Your task to perform on an android device: install app "Spotify" Image 0: 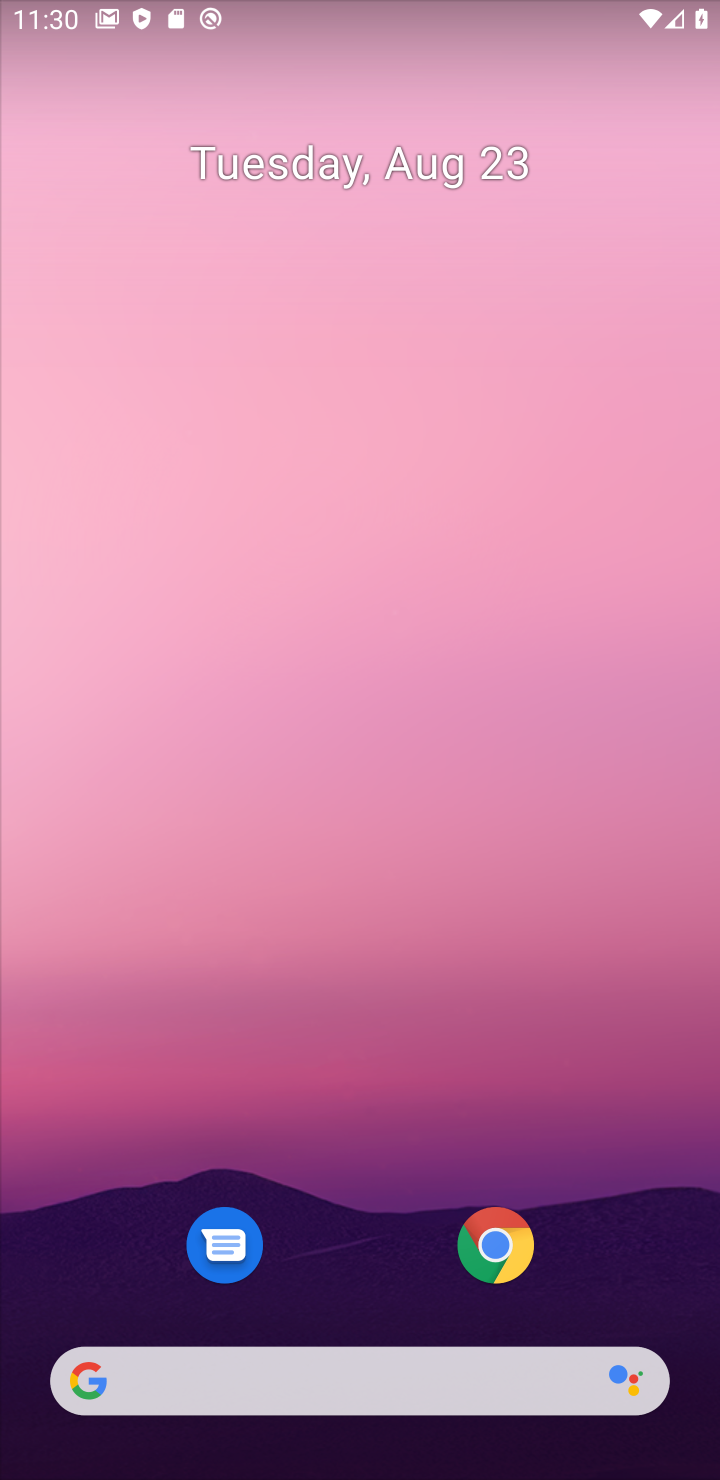
Step 0: drag from (382, 1312) to (465, 397)
Your task to perform on an android device: install app "Spotify" Image 1: 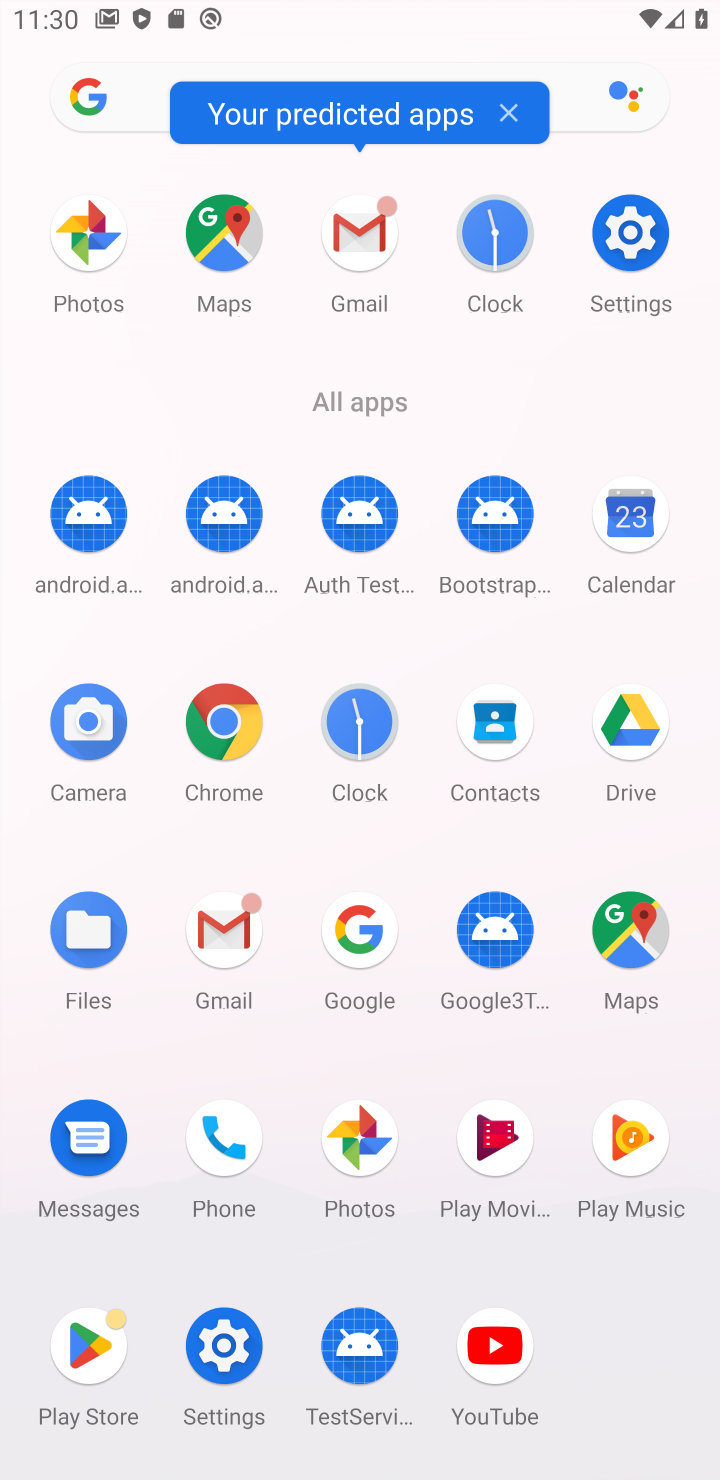
Step 1: click (85, 1350)
Your task to perform on an android device: install app "Spotify" Image 2: 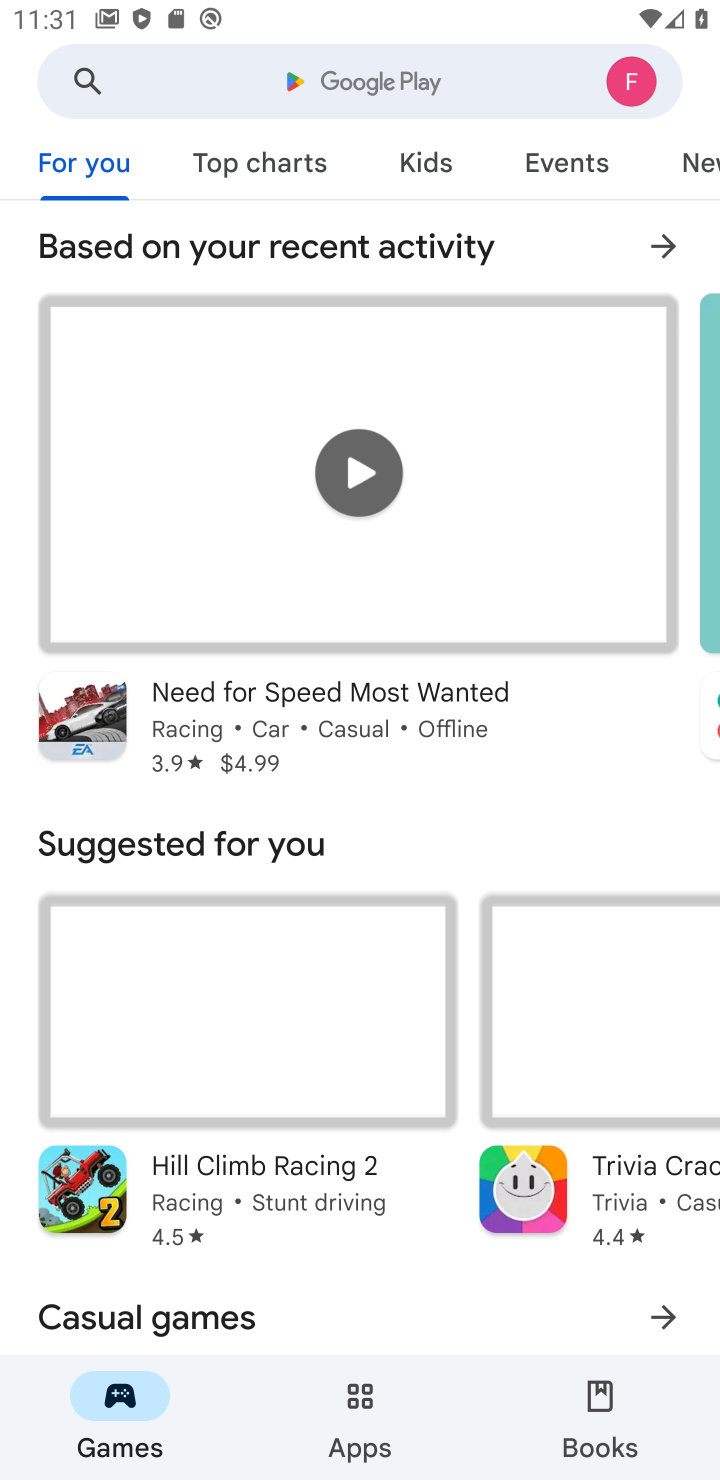
Step 2: click (382, 81)
Your task to perform on an android device: install app "Spotify" Image 3: 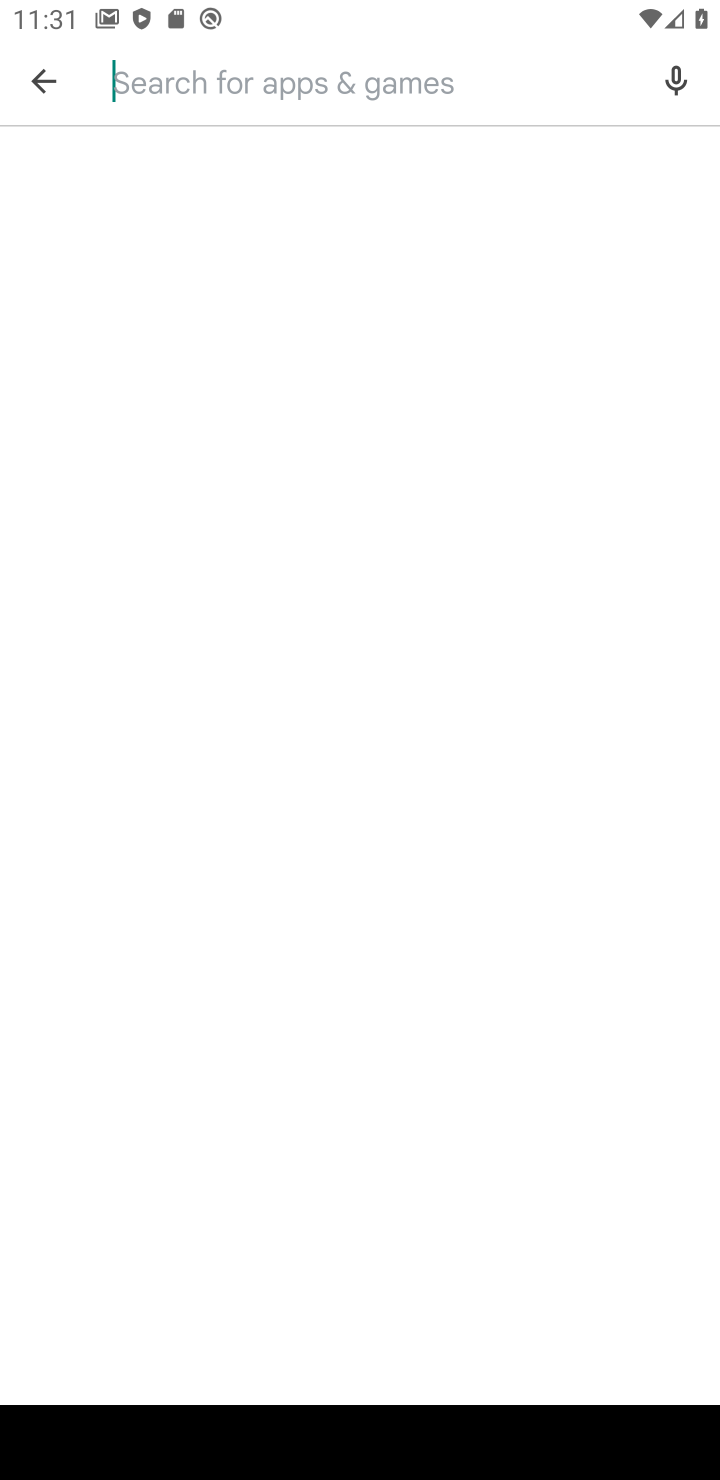
Step 3: type "Spotify"
Your task to perform on an android device: install app "Spotify" Image 4: 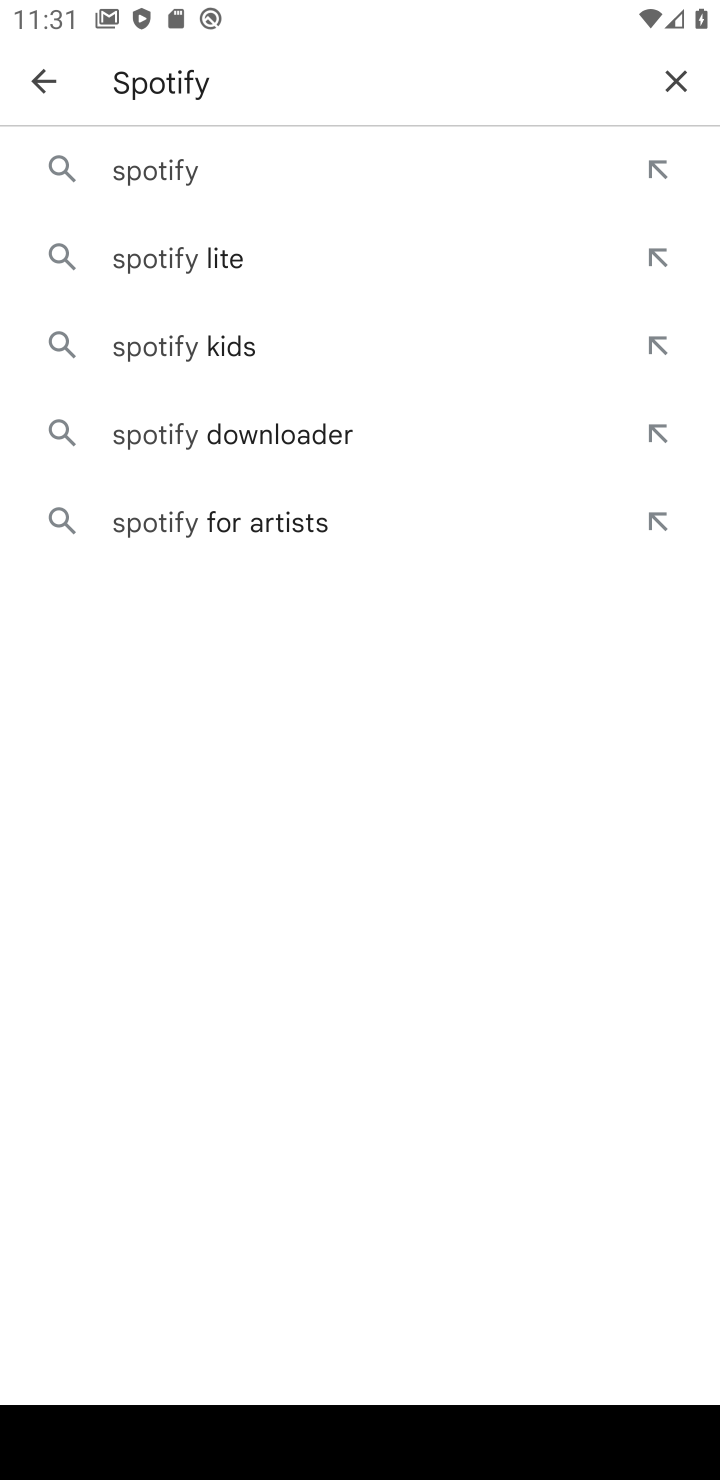
Step 4: click (173, 175)
Your task to perform on an android device: install app "Spotify" Image 5: 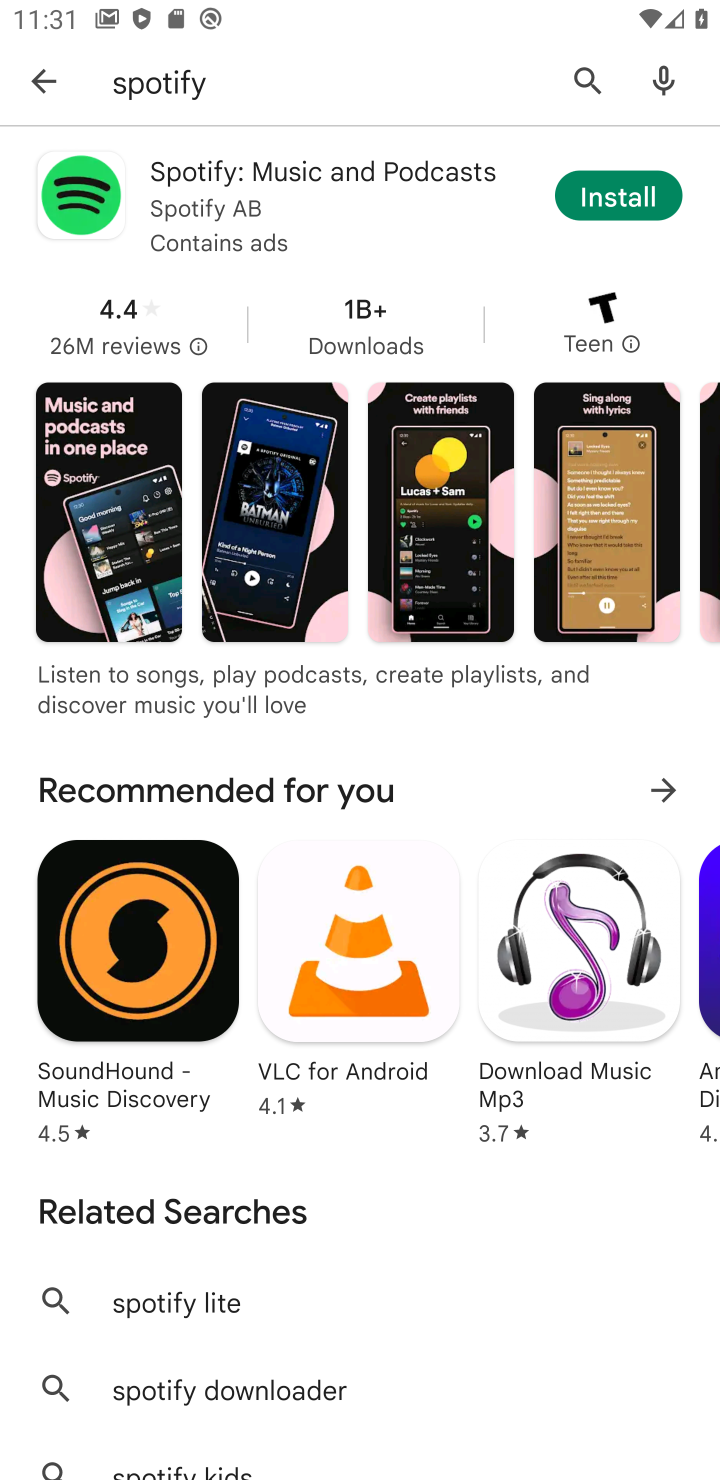
Step 5: click (613, 197)
Your task to perform on an android device: install app "Spotify" Image 6: 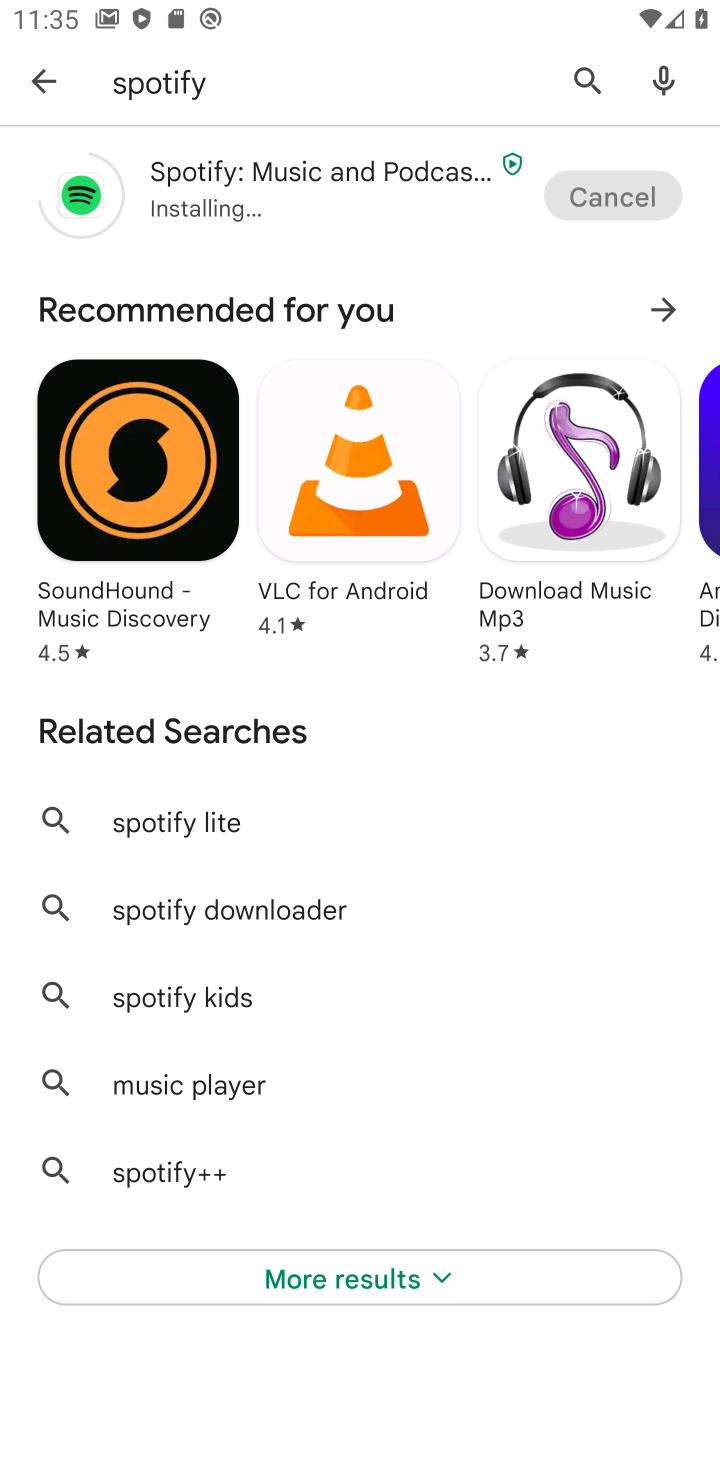
Step 6: press home button
Your task to perform on an android device: install app "Spotify" Image 7: 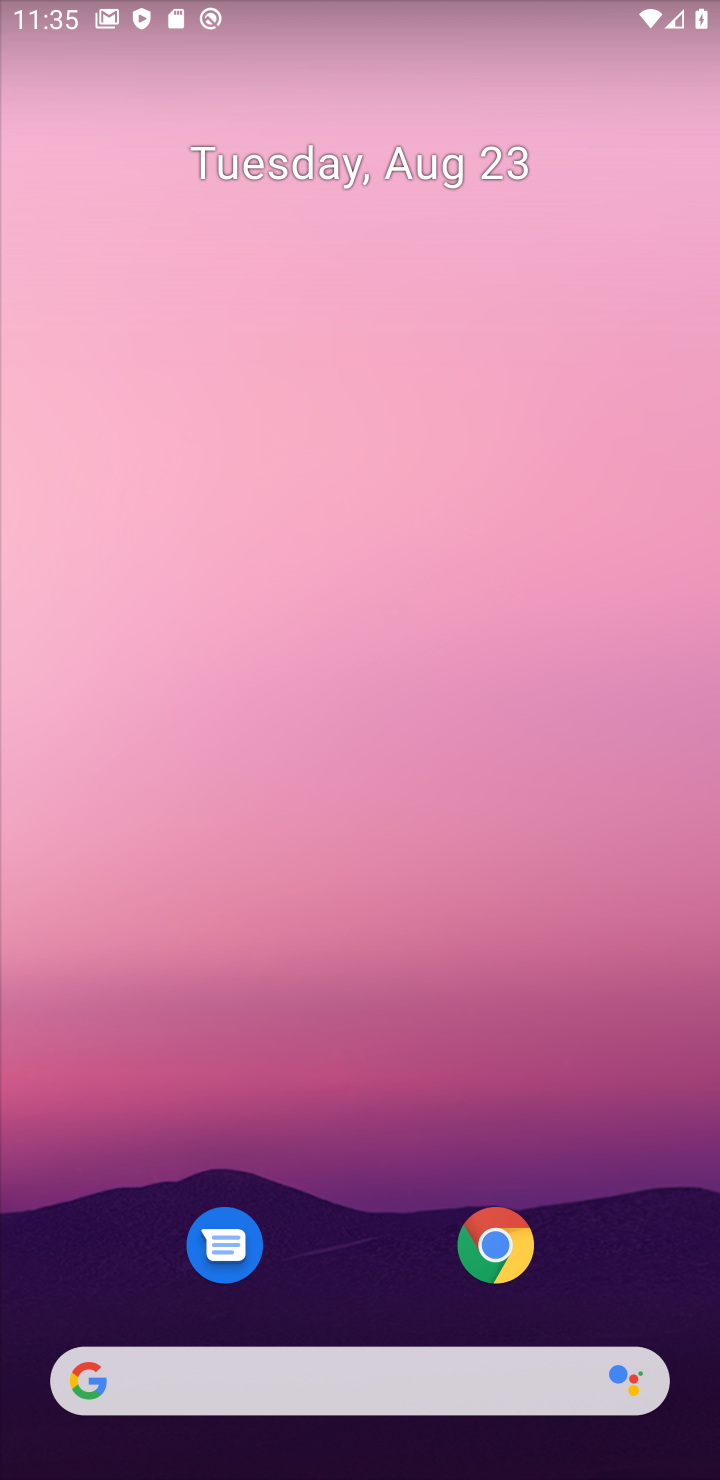
Step 7: drag from (399, 1311) to (683, 0)
Your task to perform on an android device: install app "Spotify" Image 8: 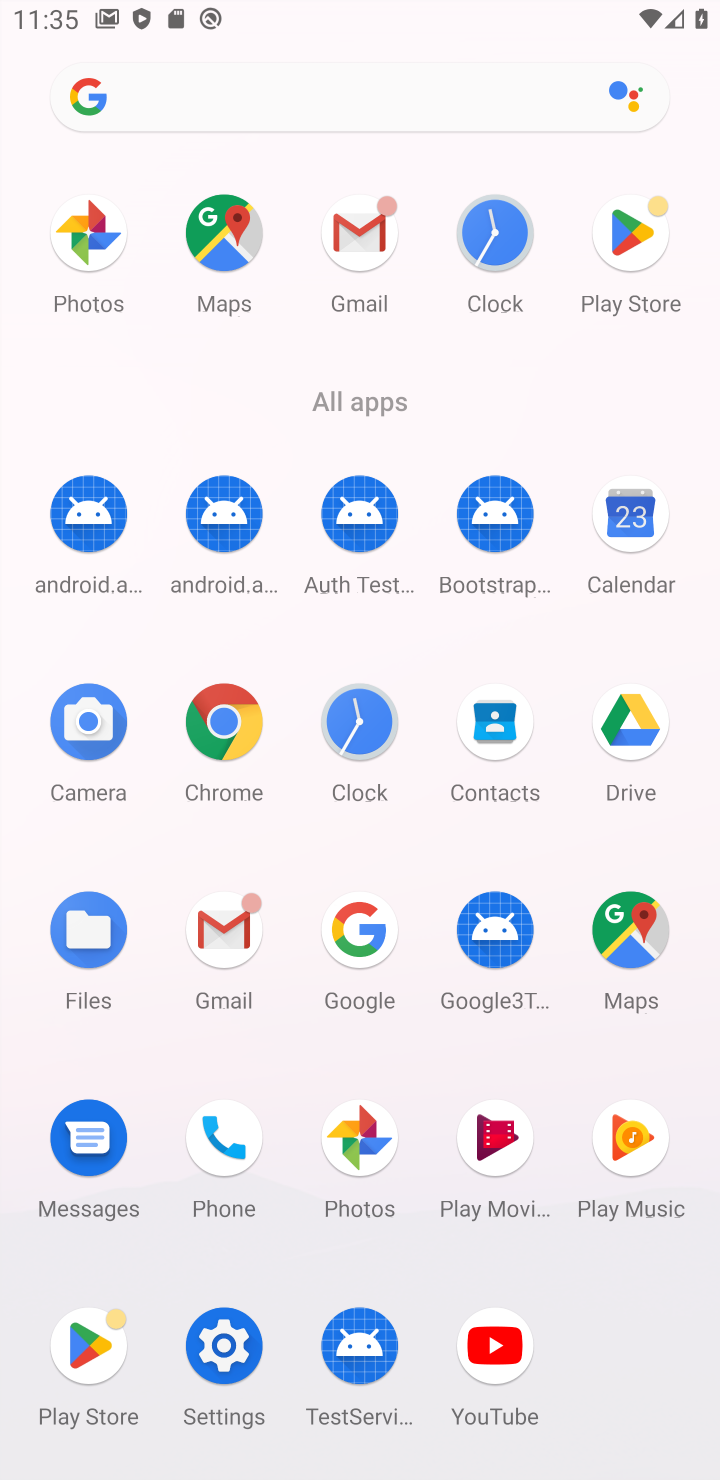
Step 8: click (80, 1345)
Your task to perform on an android device: install app "Spotify" Image 9: 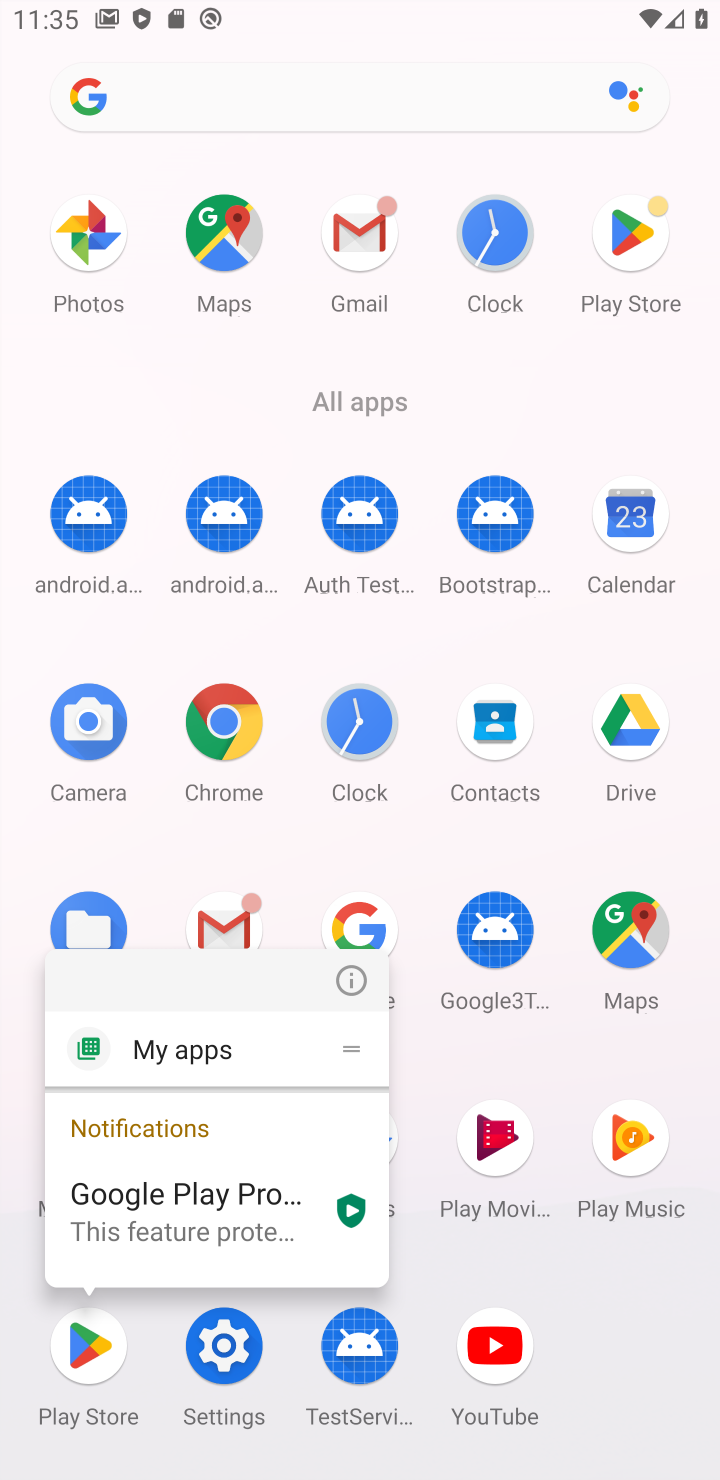
Step 9: click (80, 1350)
Your task to perform on an android device: install app "Spotify" Image 10: 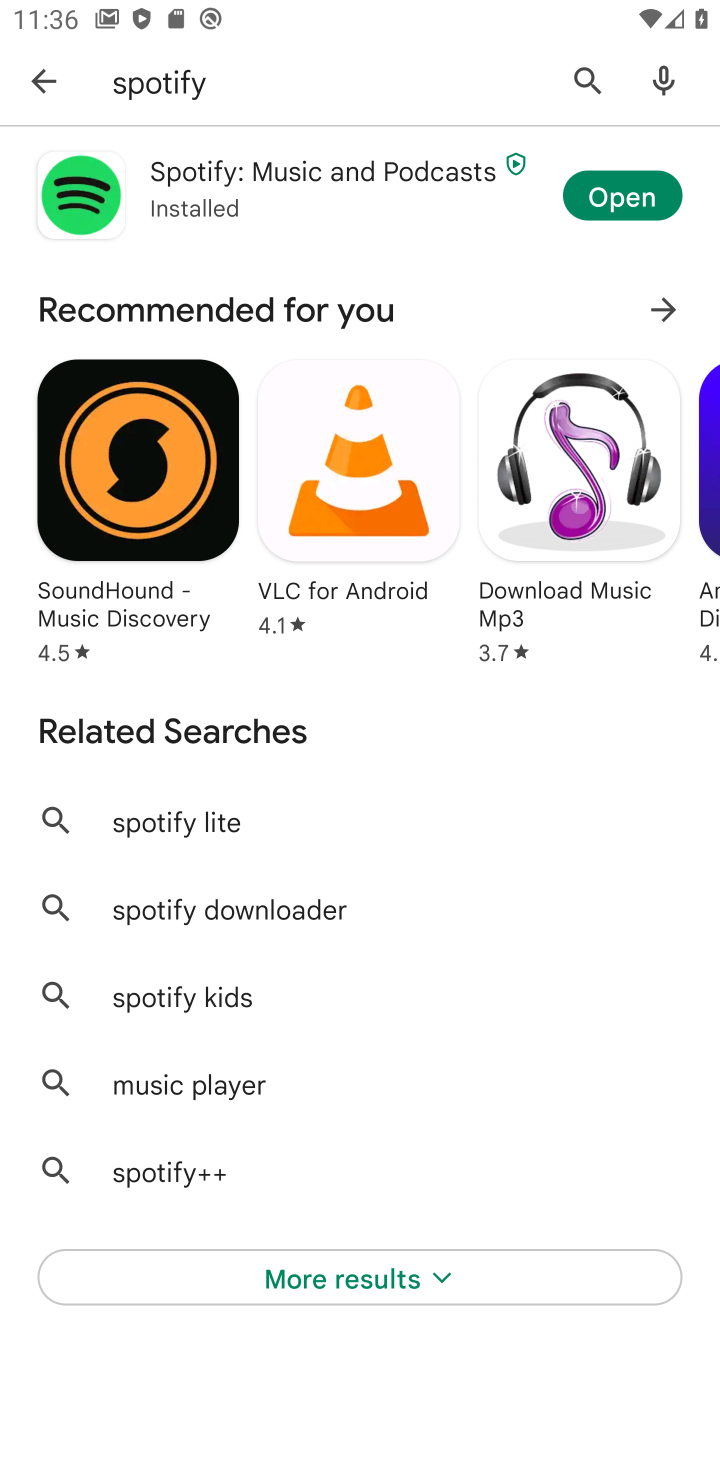
Step 10: task complete